Your task to perform on an android device: turn off notifications settings in the gmail app Image 0: 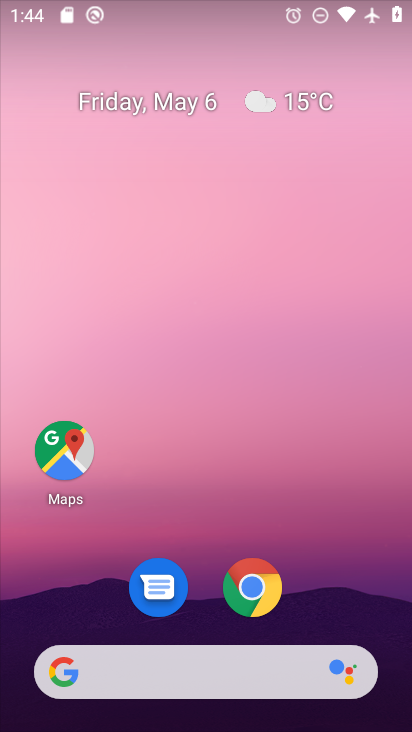
Step 0: drag from (333, 590) to (200, 57)
Your task to perform on an android device: turn off notifications settings in the gmail app Image 1: 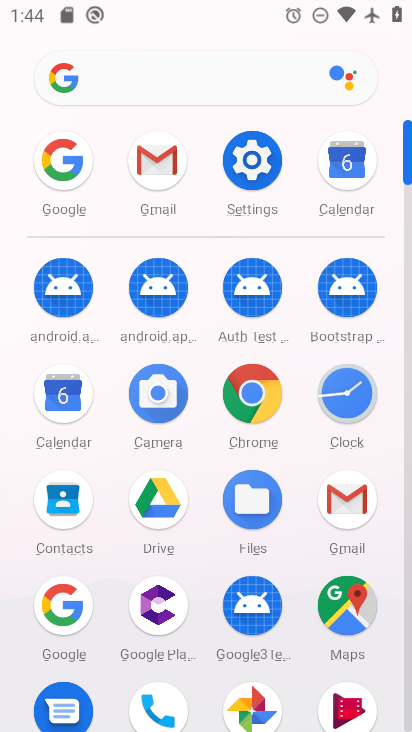
Step 1: click (355, 500)
Your task to perform on an android device: turn off notifications settings in the gmail app Image 2: 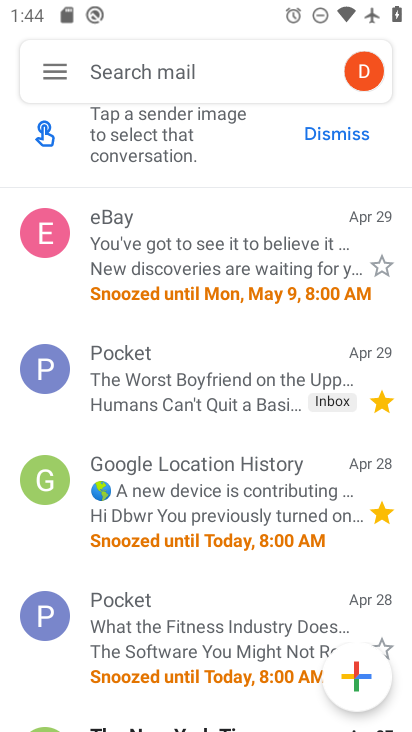
Step 2: click (48, 68)
Your task to perform on an android device: turn off notifications settings in the gmail app Image 3: 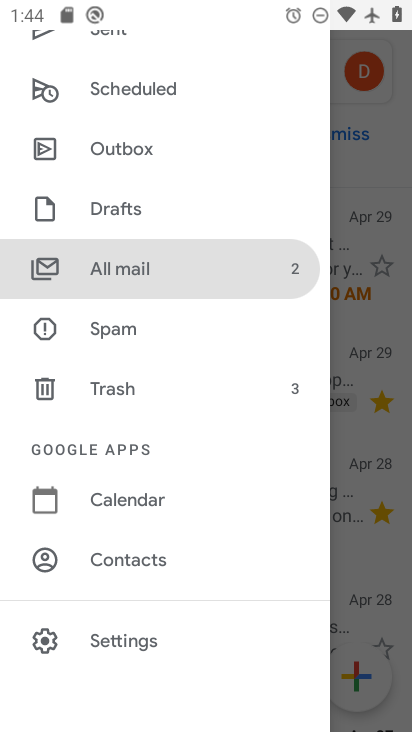
Step 3: click (143, 624)
Your task to perform on an android device: turn off notifications settings in the gmail app Image 4: 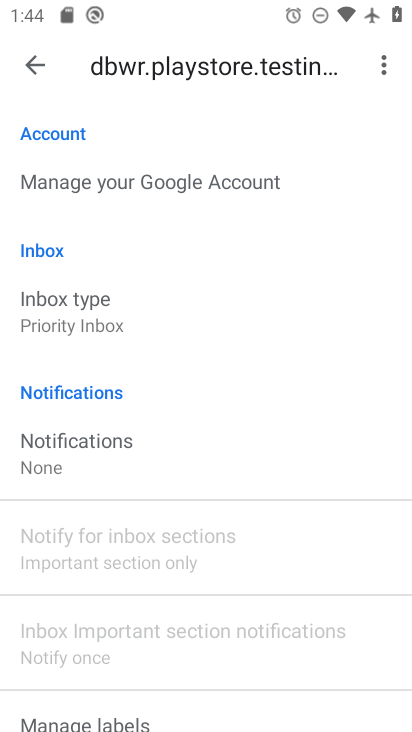
Step 4: drag from (117, 598) to (150, 235)
Your task to perform on an android device: turn off notifications settings in the gmail app Image 5: 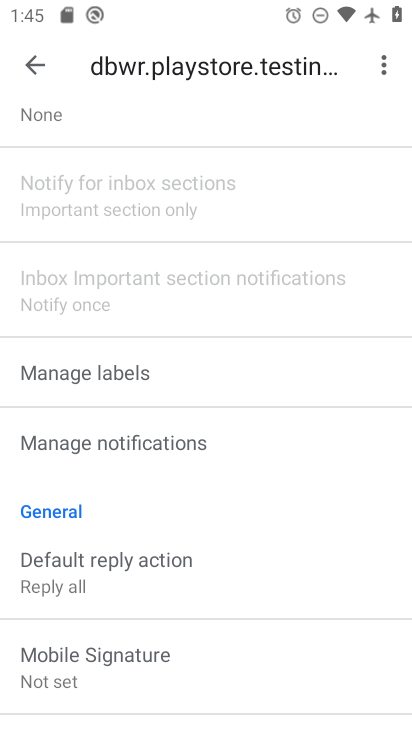
Step 5: click (138, 446)
Your task to perform on an android device: turn off notifications settings in the gmail app Image 6: 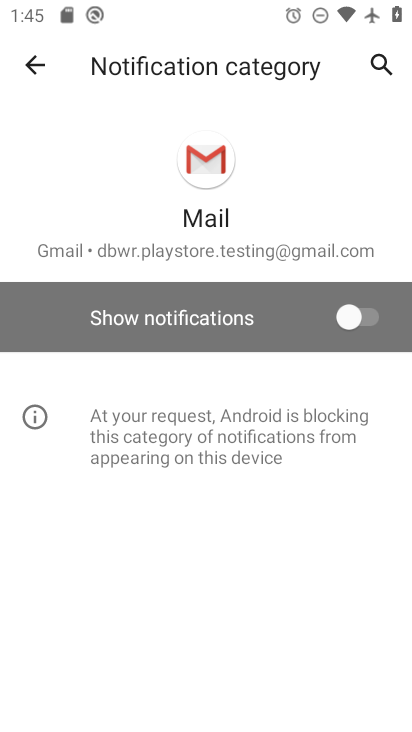
Step 6: task complete